Your task to perform on an android device: Check the news Image 0: 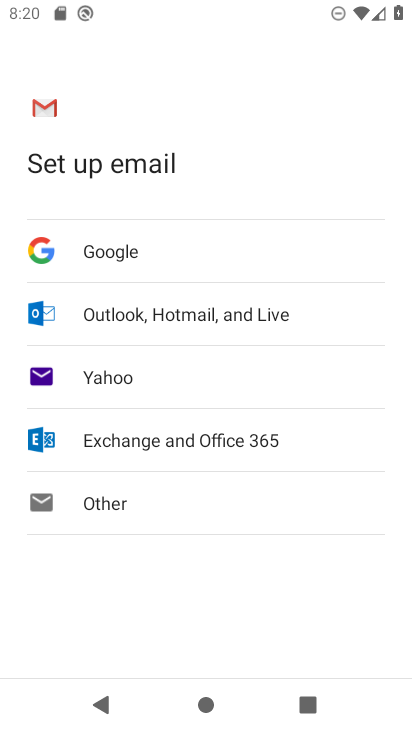
Step 0: press home button
Your task to perform on an android device: Check the news Image 1: 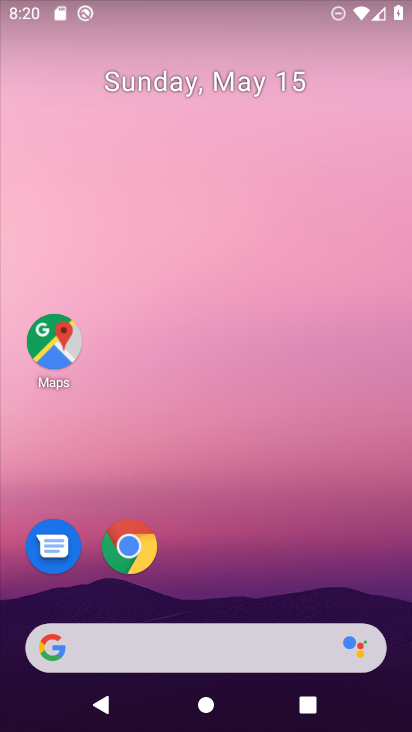
Step 1: click (189, 644)
Your task to perform on an android device: Check the news Image 2: 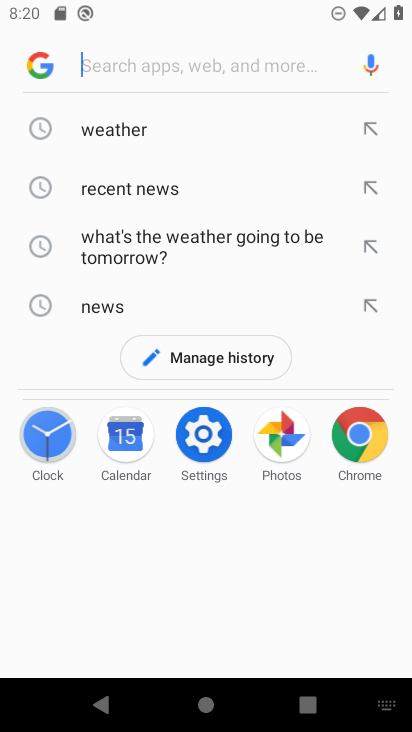
Step 2: click (85, 297)
Your task to perform on an android device: Check the news Image 3: 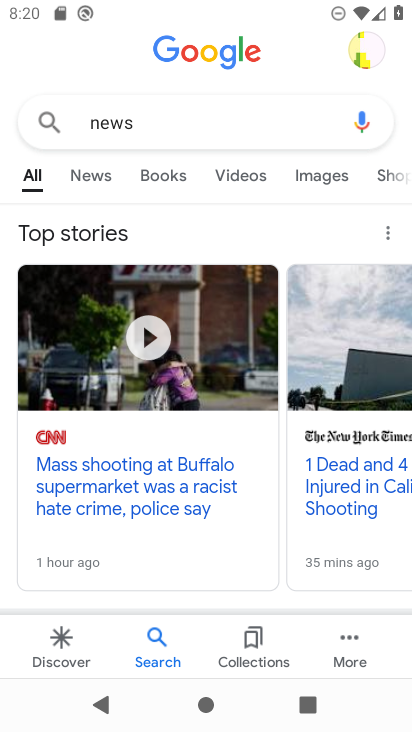
Step 3: click (92, 173)
Your task to perform on an android device: Check the news Image 4: 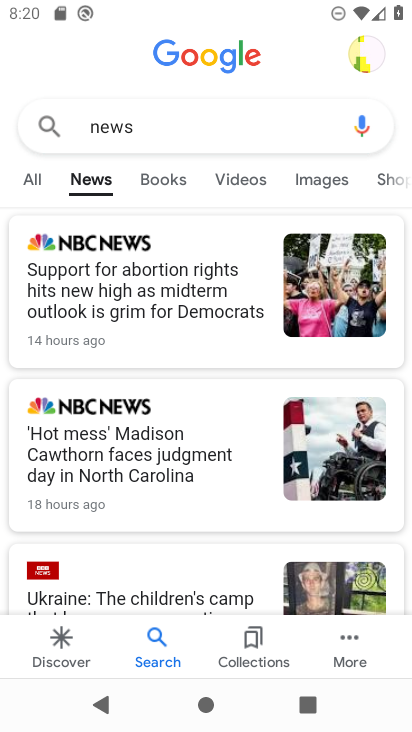
Step 4: task complete